Your task to perform on an android device: open app "The Home Depot" Image 0: 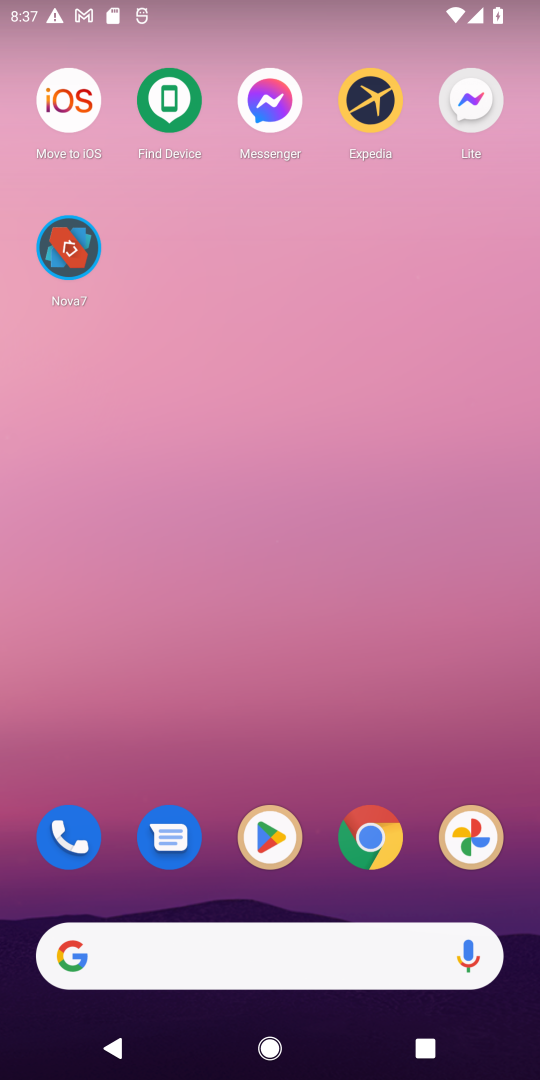
Step 0: press home button
Your task to perform on an android device: open app "The Home Depot" Image 1: 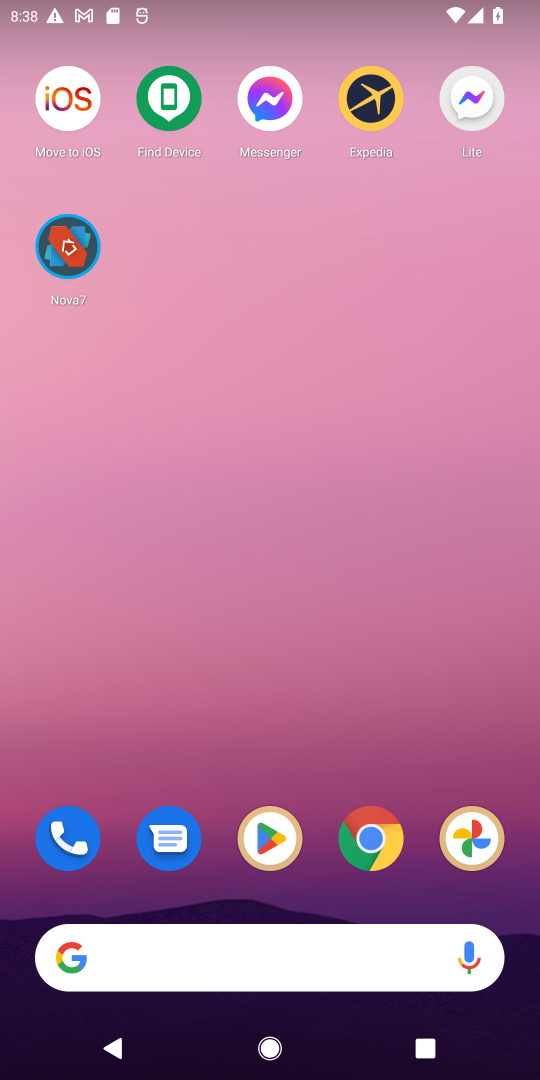
Step 1: click (264, 830)
Your task to perform on an android device: open app "The Home Depot" Image 2: 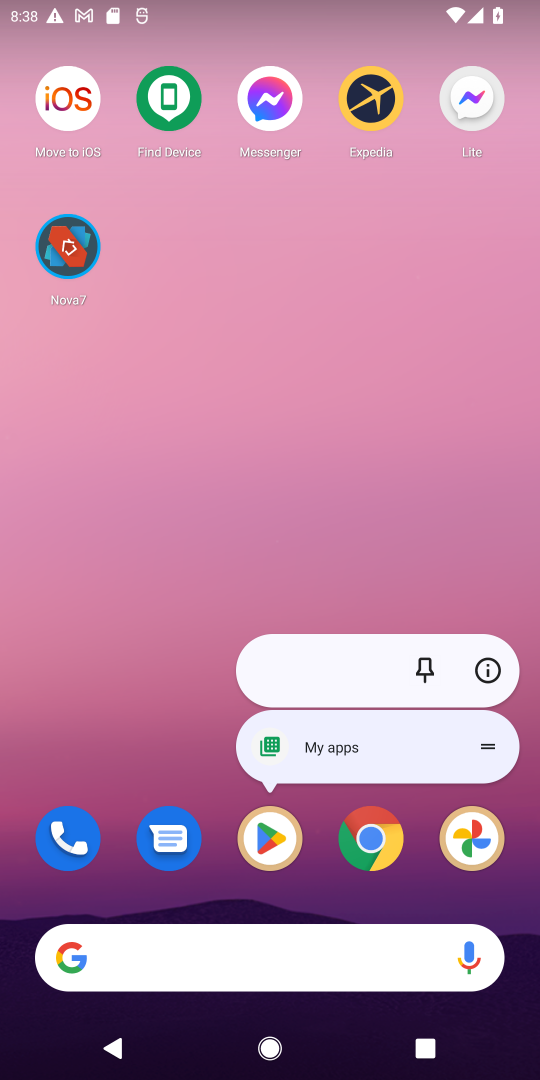
Step 2: click (264, 830)
Your task to perform on an android device: open app "The Home Depot" Image 3: 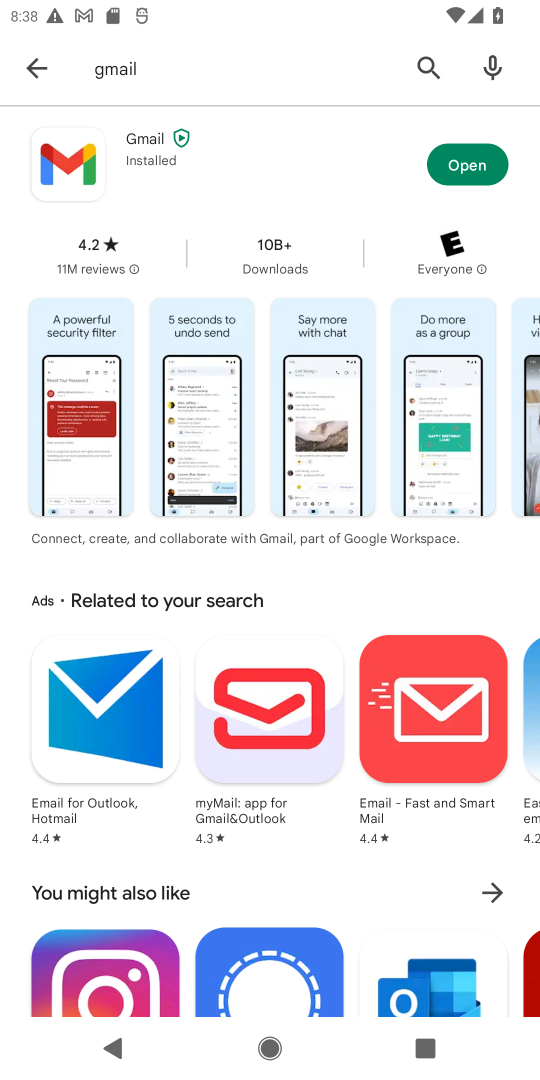
Step 3: click (422, 64)
Your task to perform on an android device: open app "The Home Depot" Image 4: 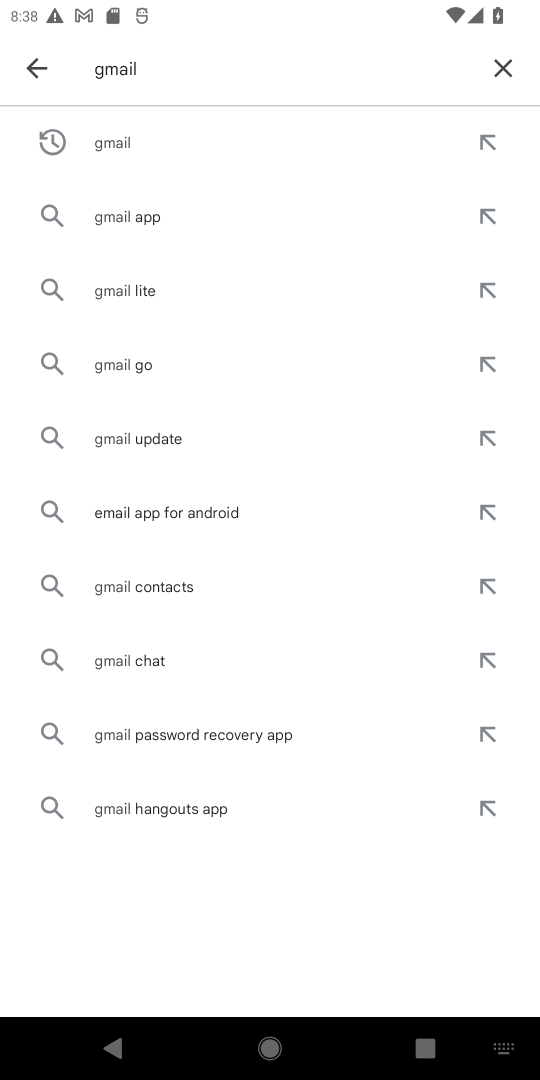
Step 4: click (505, 64)
Your task to perform on an android device: open app "The Home Depot" Image 5: 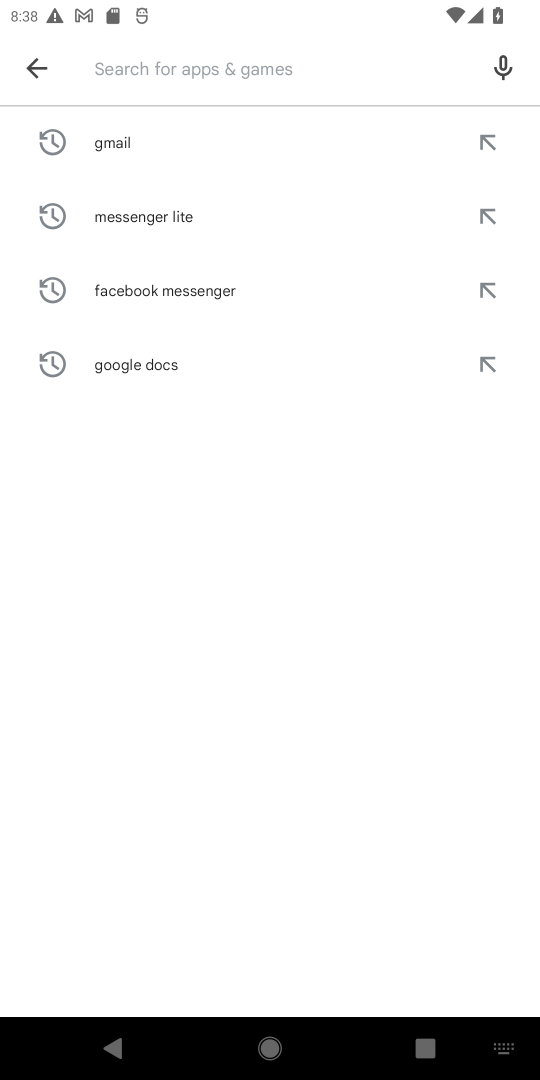
Step 5: type "The Home Depot"
Your task to perform on an android device: open app "The Home Depot" Image 6: 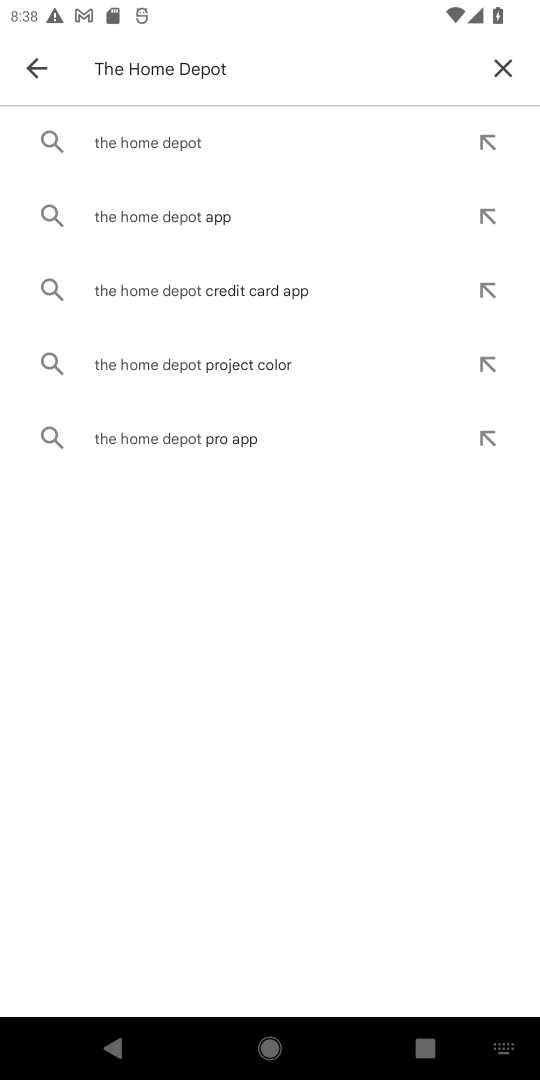
Step 6: click (205, 142)
Your task to perform on an android device: open app "The Home Depot" Image 7: 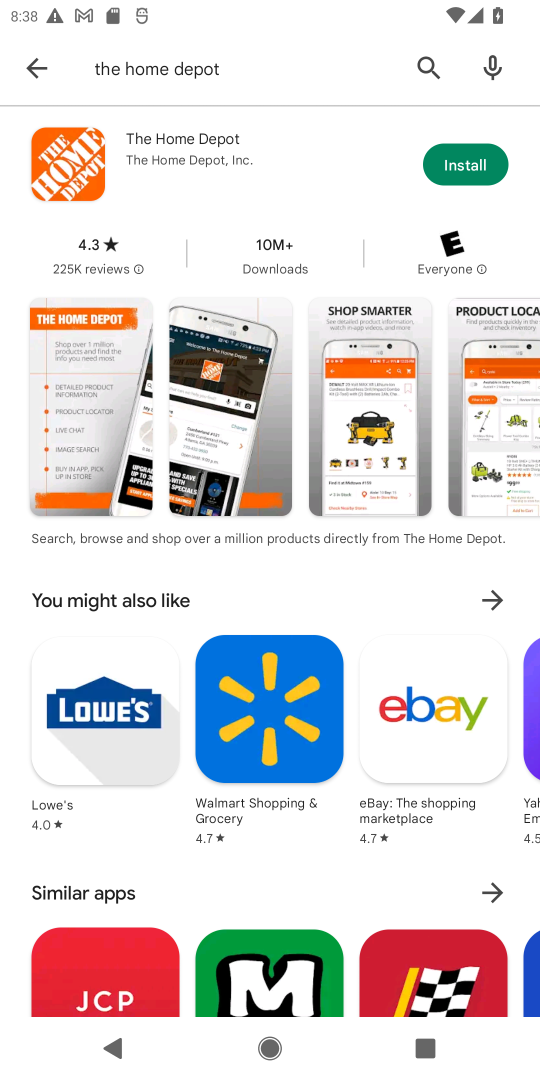
Step 7: task complete